Your task to perform on an android device: show emergency info Image 0: 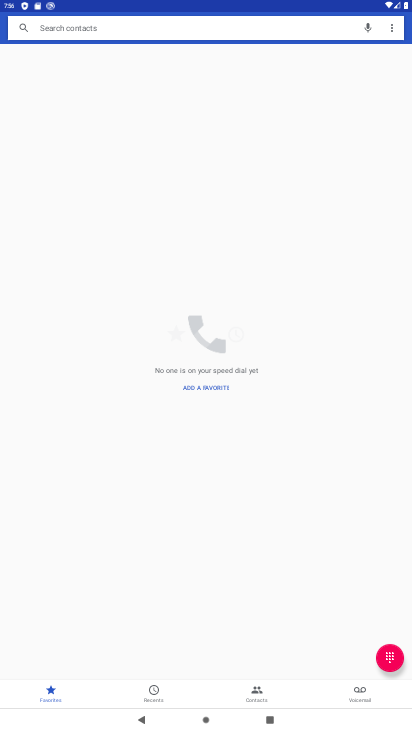
Step 0: press home button
Your task to perform on an android device: show emergency info Image 1: 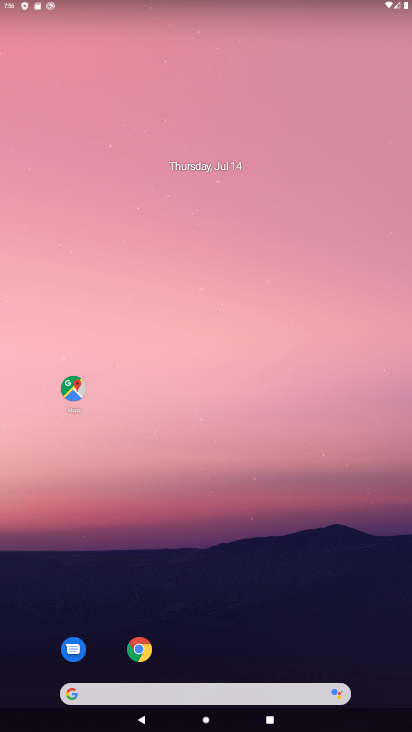
Step 1: drag from (170, 672) to (311, 219)
Your task to perform on an android device: show emergency info Image 2: 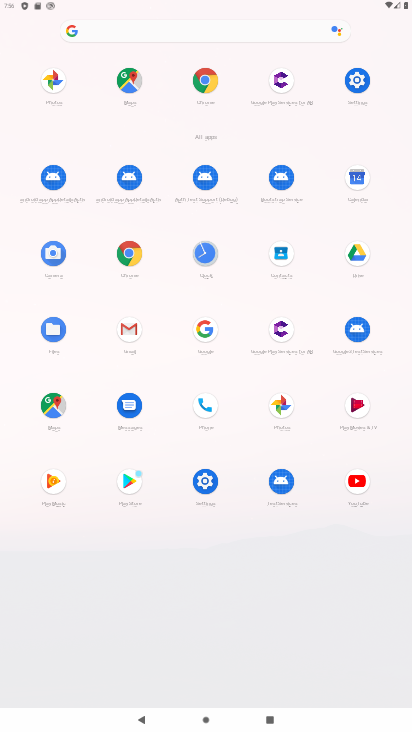
Step 2: click (203, 479)
Your task to perform on an android device: show emergency info Image 3: 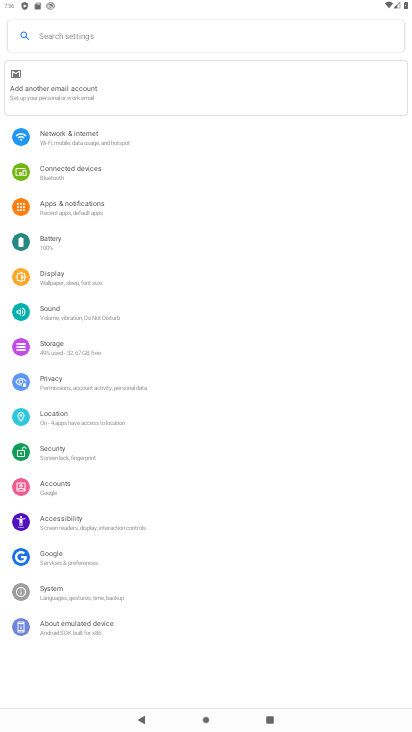
Step 3: click (73, 622)
Your task to perform on an android device: show emergency info Image 4: 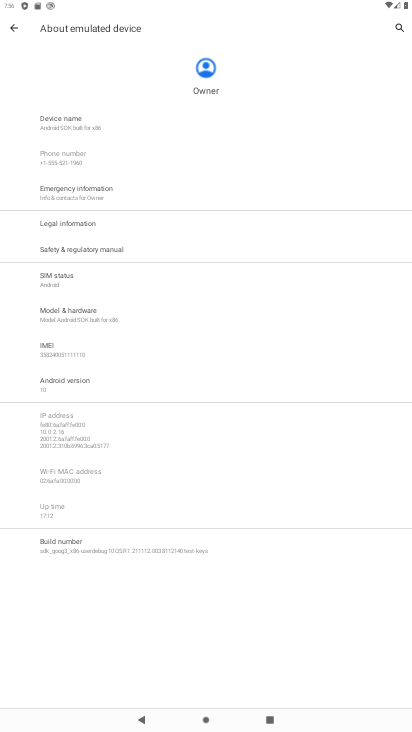
Step 4: click (102, 190)
Your task to perform on an android device: show emergency info Image 5: 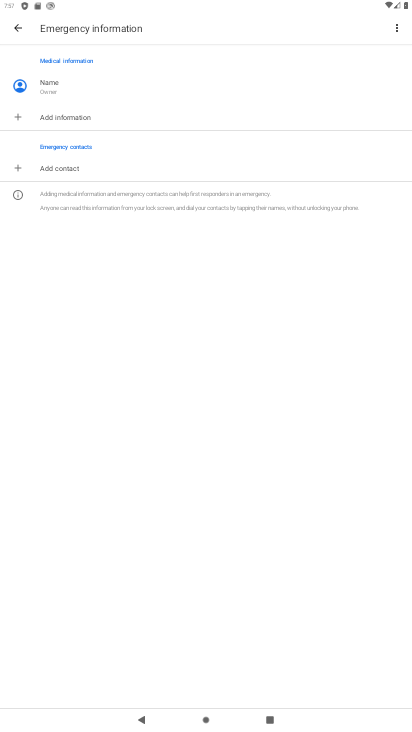
Step 5: task complete